Your task to perform on an android device: Open Google Maps Image 0: 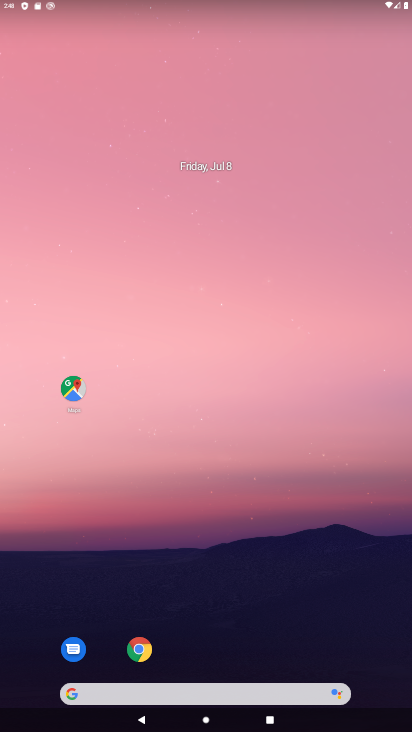
Step 0: drag from (198, 658) to (147, 106)
Your task to perform on an android device: Open Google Maps Image 1: 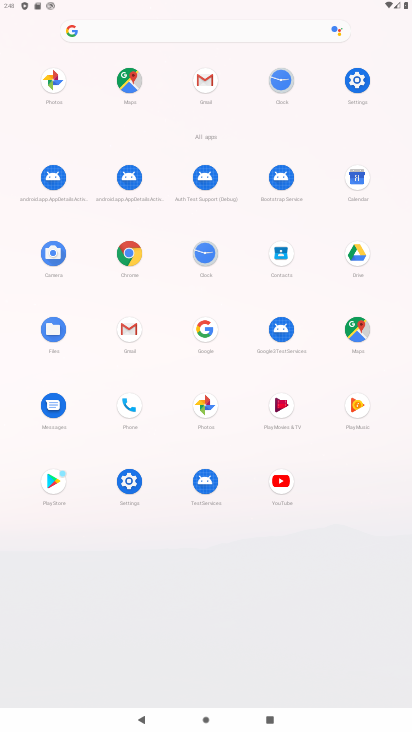
Step 1: click (356, 327)
Your task to perform on an android device: Open Google Maps Image 2: 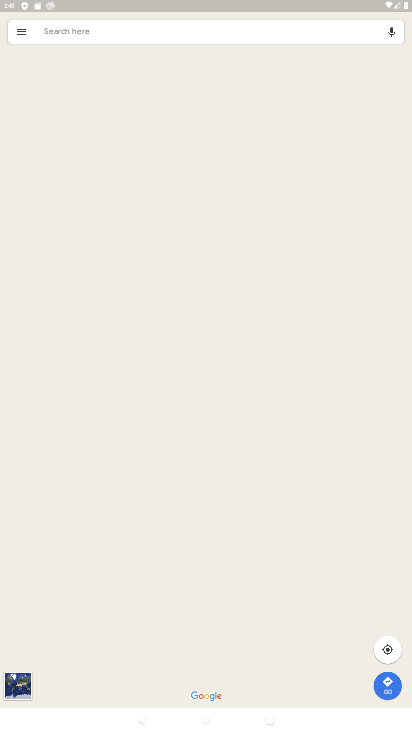
Step 2: task complete